Your task to perform on an android device: How do I get to the nearest Home Depot? Image 0: 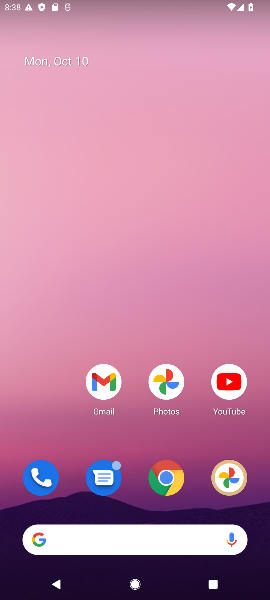
Step 0: click (160, 481)
Your task to perform on an android device: How do I get to the nearest Home Depot? Image 1: 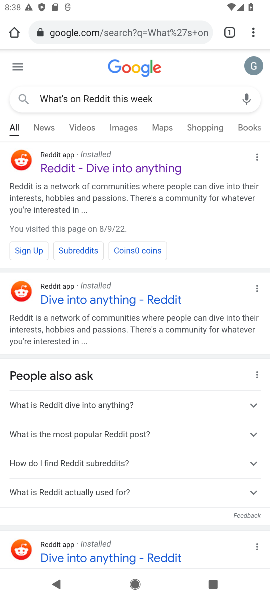
Step 1: click (136, 29)
Your task to perform on an android device: How do I get to the nearest Home Depot? Image 2: 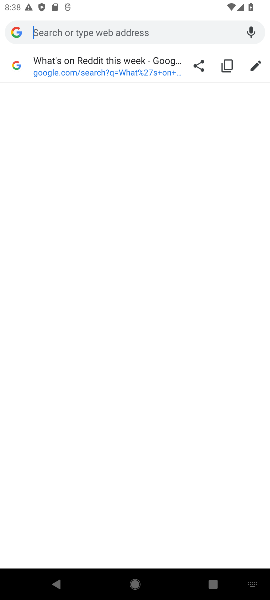
Step 2: type "How do I get to the nearest Home Depot?"
Your task to perform on an android device: How do I get to the nearest Home Depot? Image 3: 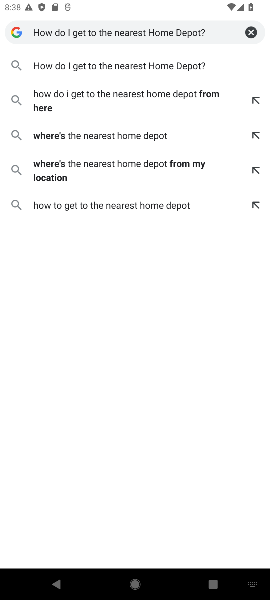
Step 3: click (173, 35)
Your task to perform on an android device: How do I get to the nearest Home Depot? Image 4: 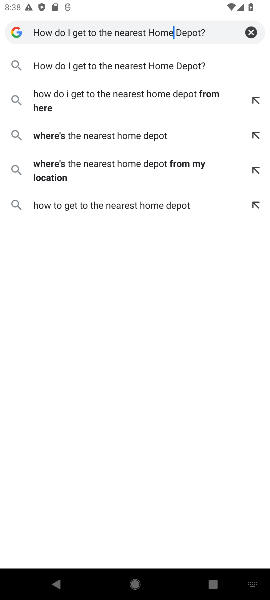
Step 4: click (146, 66)
Your task to perform on an android device: How do I get to the nearest Home Depot? Image 5: 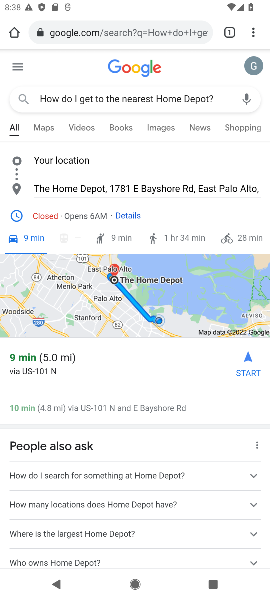
Step 5: task complete